Your task to perform on an android device: Open calendar and show me the second week of next month Image 0: 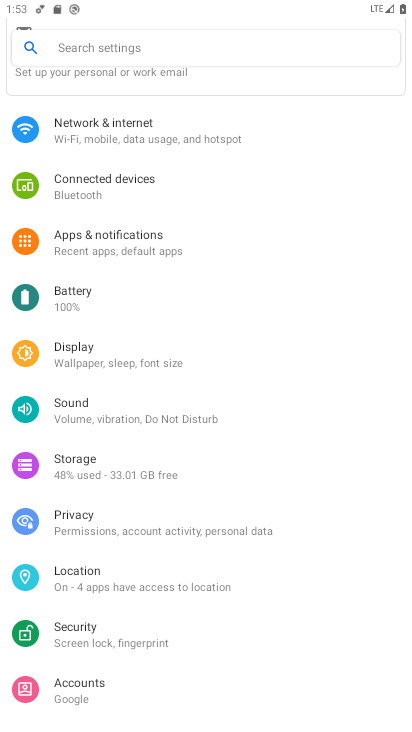
Step 0: press home button
Your task to perform on an android device: Open calendar and show me the second week of next month Image 1: 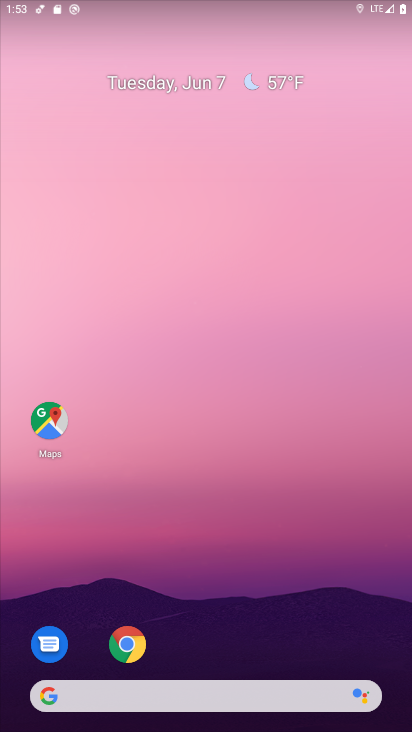
Step 1: drag from (258, 622) to (179, 111)
Your task to perform on an android device: Open calendar and show me the second week of next month Image 2: 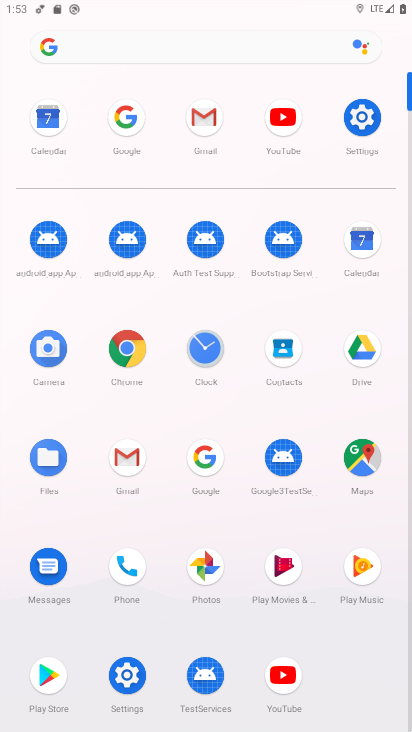
Step 2: click (366, 233)
Your task to perform on an android device: Open calendar and show me the second week of next month Image 3: 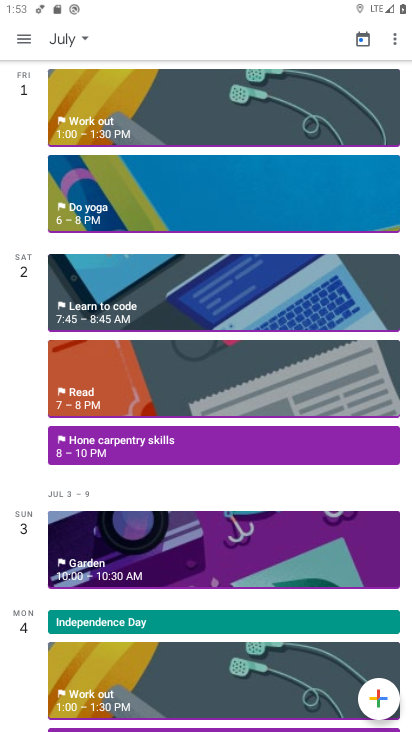
Step 3: click (89, 32)
Your task to perform on an android device: Open calendar and show me the second week of next month Image 4: 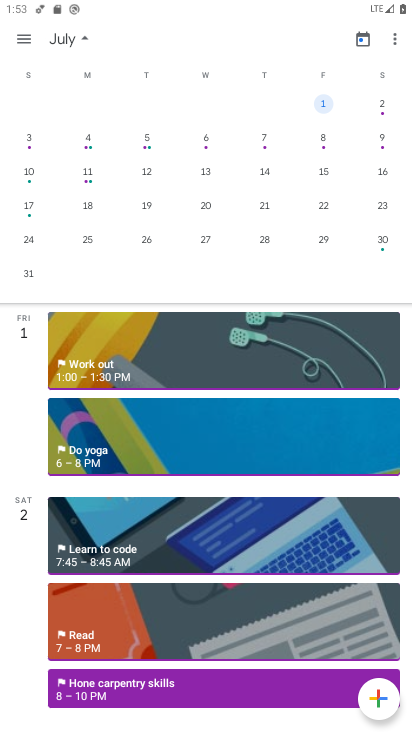
Step 4: click (39, 148)
Your task to perform on an android device: Open calendar and show me the second week of next month Image 5: 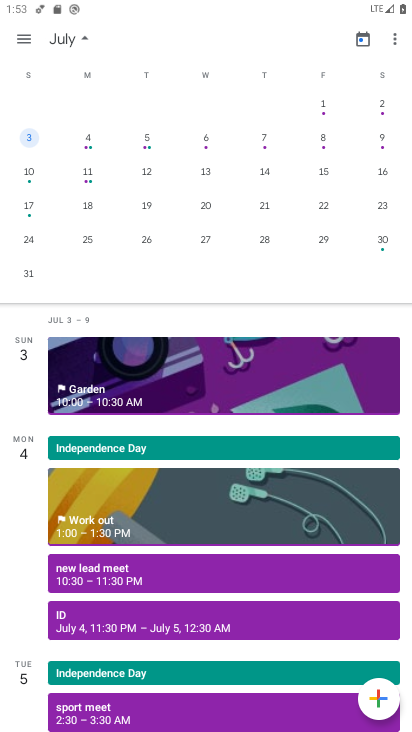
Step 5: task complete